Your task to perform on an android device: toggle notifications settings in the gmail app Image 0: 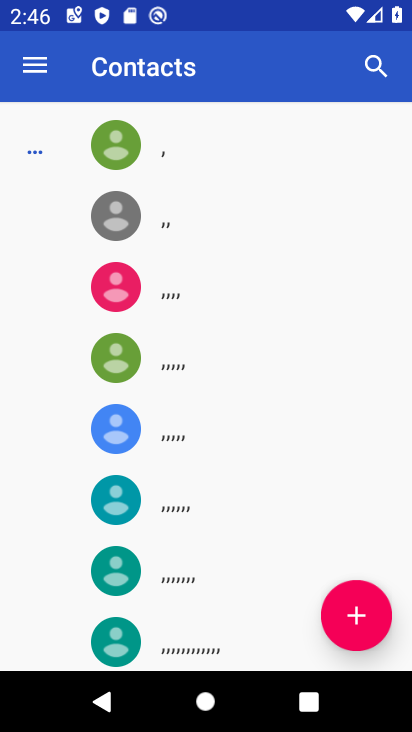
Step 0: press home button
Your task to perform on an android device: toggle notifications settings in the gmail app Image 1: 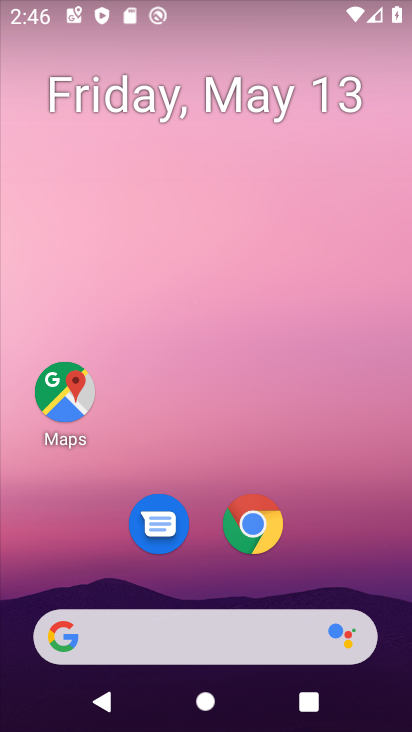
Step 1: drag from (295, 571) to (332, 74)
Your task to perform on an android device: toggle notifications settings in the gmail app Image 2: 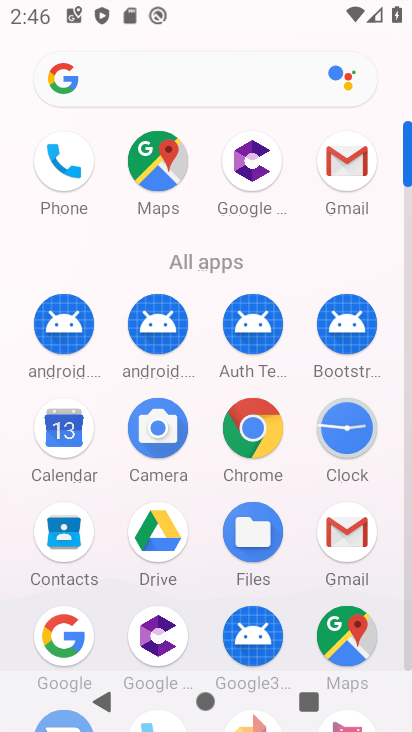
Step 2: click (329, 167)
Your task to perform on an android device: toggle notifications settings in the gmail app Image 3: 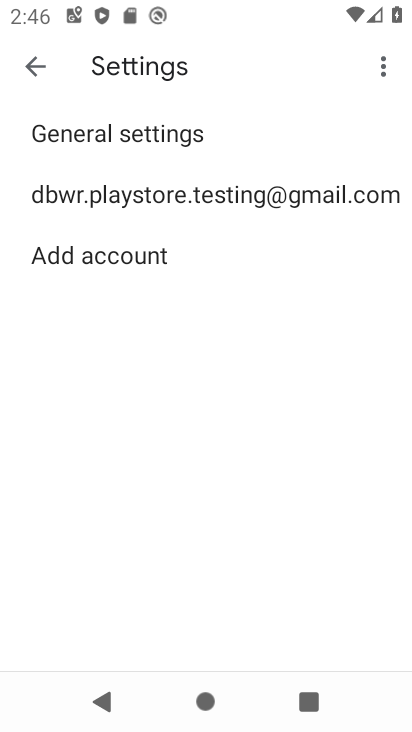
Step 3: click (178, 125)
Your task to perform on an android device: toggle notifications settings in the gmail app Image 4: 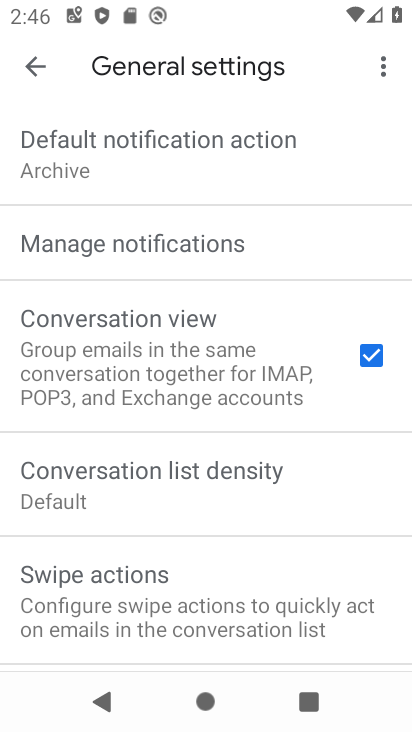
Step 4: click (186, 244)
Your task to perform on an android device: toggle notifications settings in the gmail app Image 5: 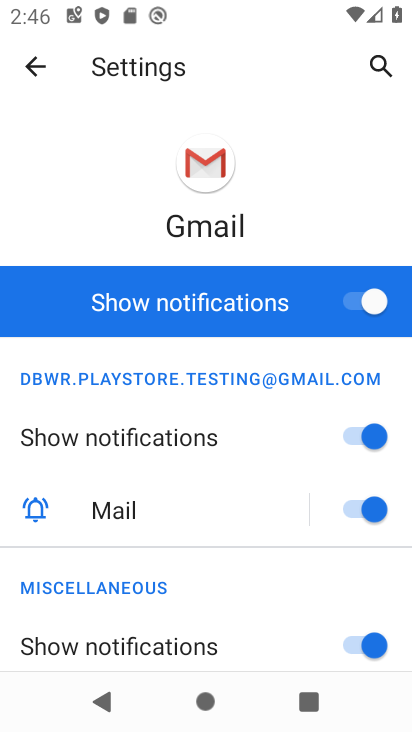
Step 5: click (359, 300)
Your task to perform on an android device: toggle notifications settings in the gmail app Image 6: 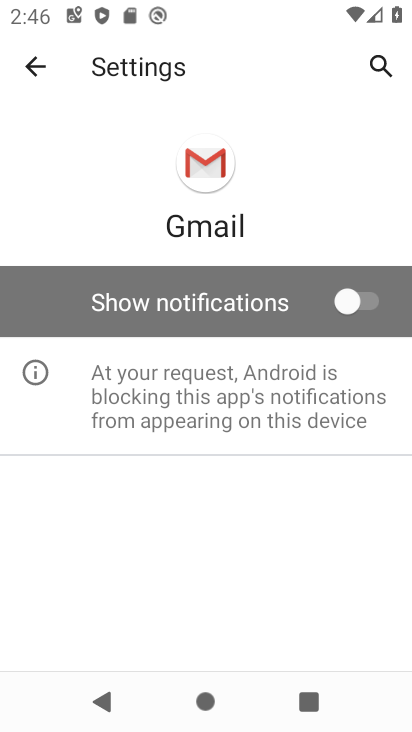
Step 6: task complete